Your task to perform on an android device: allow cookies in the chrome app Image 0: 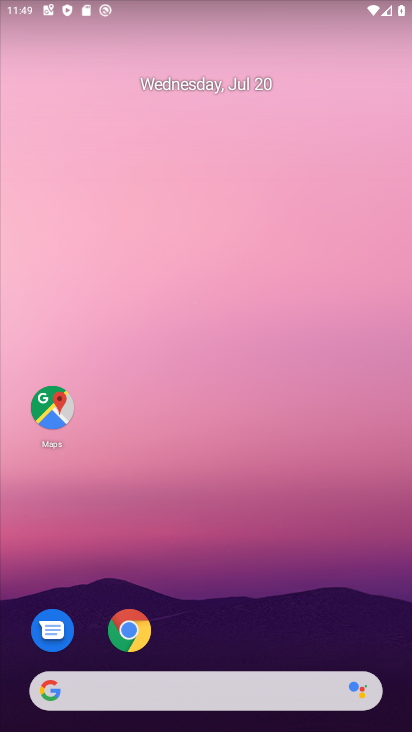
Step 0: click (146, 618)
Your task to perform on an android device: allow cookies in the chrome app Image 1: 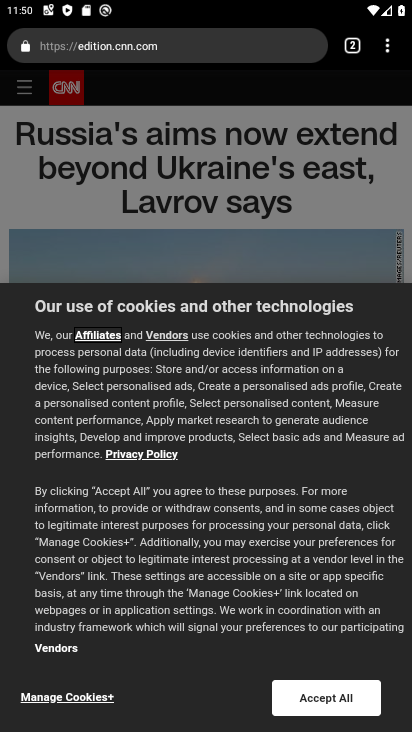
Step 1: click (383, 56)
Your task to perform on an android device: allow cookies in the chrome app Image 2: 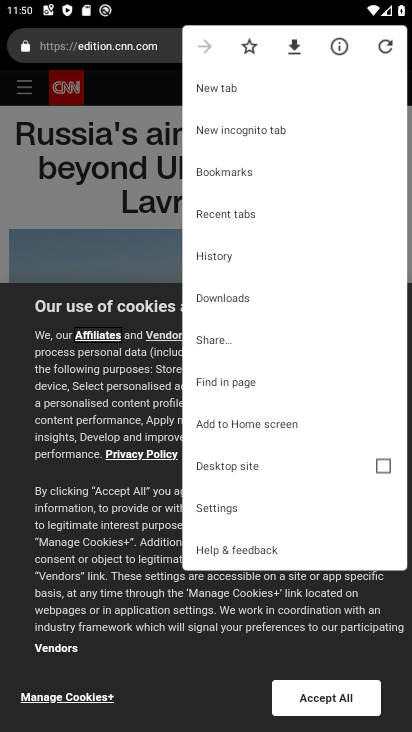
Step 2: click (222, 510)
Your task to perform on an android device: allow cookies in the chrome app Image 3: 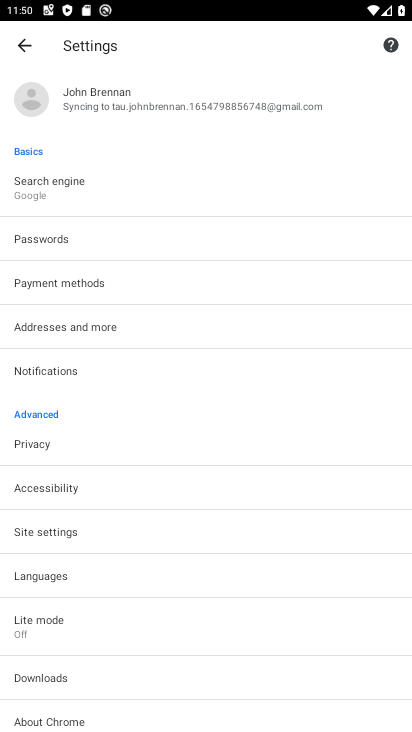
Step 3: click (68, 527)
Your task to perform on an android device: allow cookies in the chrome app Image 4: 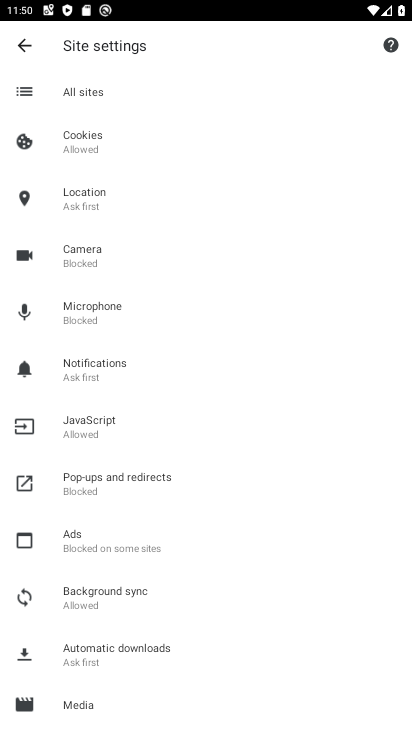
Step 4: click (93, 155)
Your task to perform on an android device: allow cookies in the chrome app Image 5: 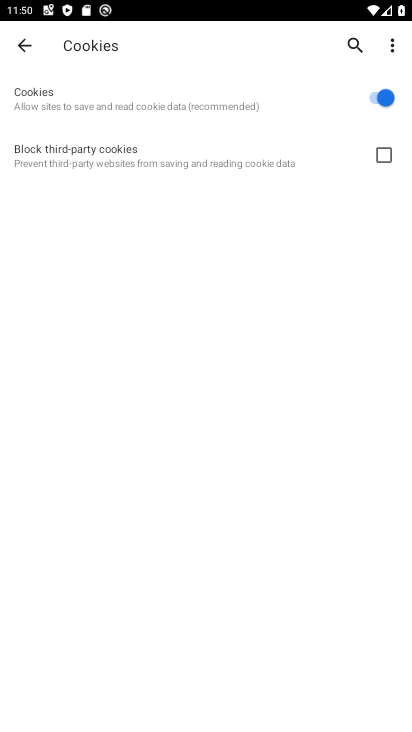
Step 5: click (348, 93)
Your task to perform on an android device: allow cookies in the chrome app Image 6: 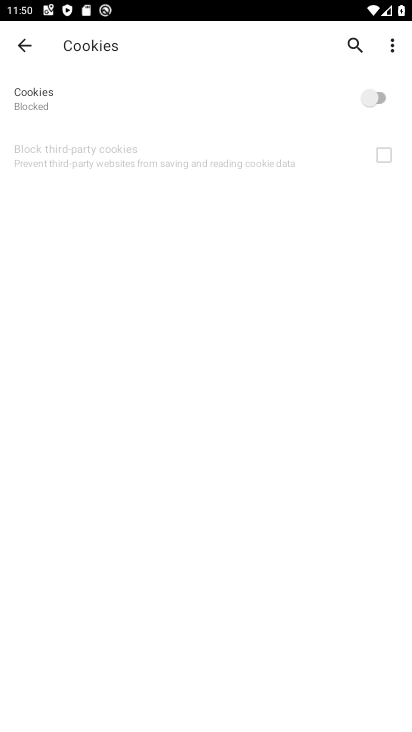
Step 6: click (348, 93)
Your task to perform on an android device: allow cookies in the chrome app Image 7: 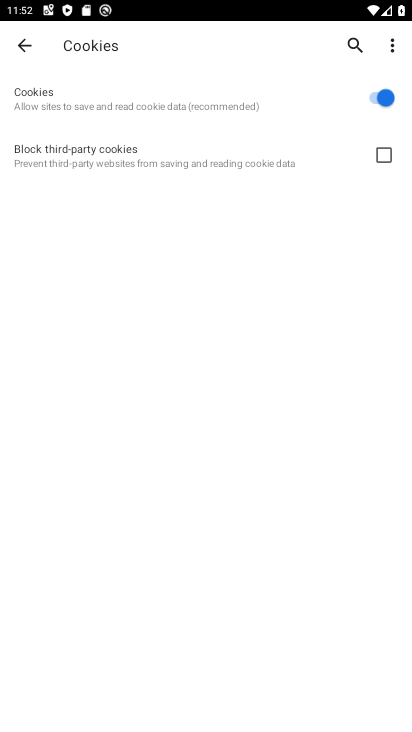
Step 7: task complete